Your task to perform on an android device: turn off notifications settings in the gmail app Image 0: 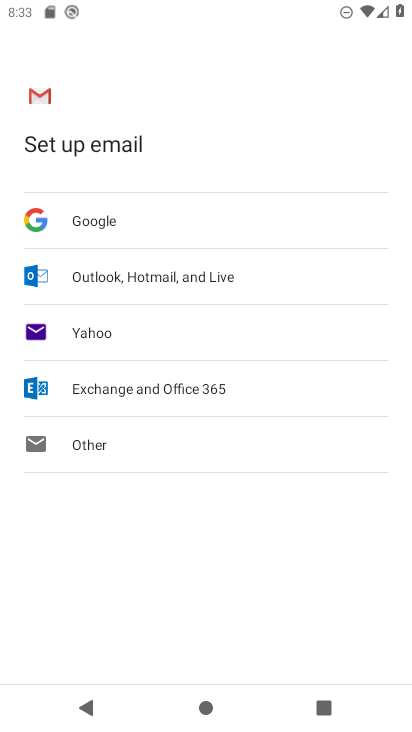
Step 0: press home button
Your task to perform on an android device: turn off notifications settings in the gmail app Image 1: 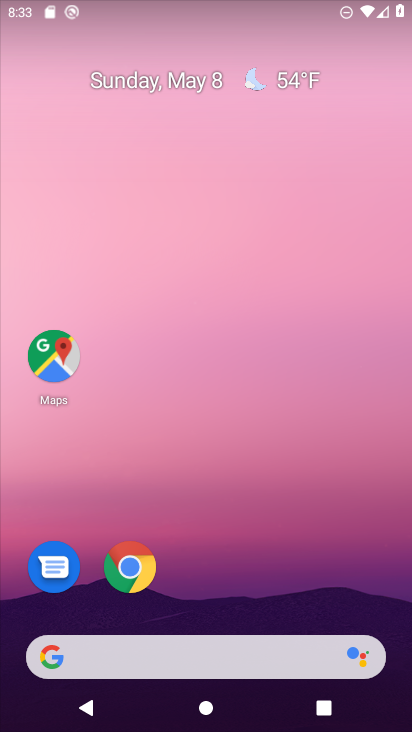
Step 1: drag from (266, 501) to (361, 67)
Your task to perform on an android device: turn off notifications settings in the gmail app Image 2: 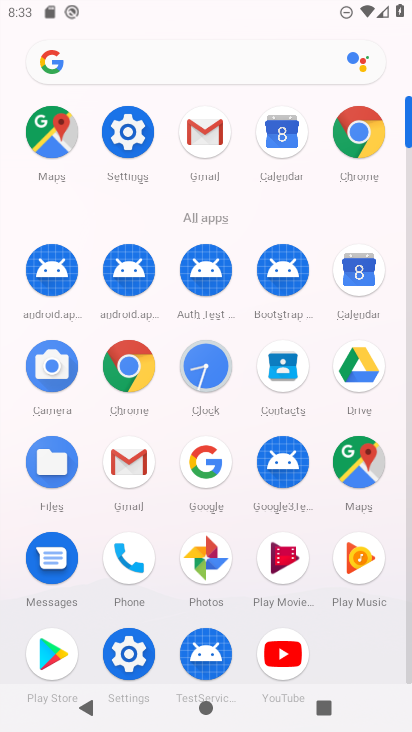
Step 2: click (227, 138)
Your task to perform on an android device: turn off notifications settings in the gmail app Image 3: 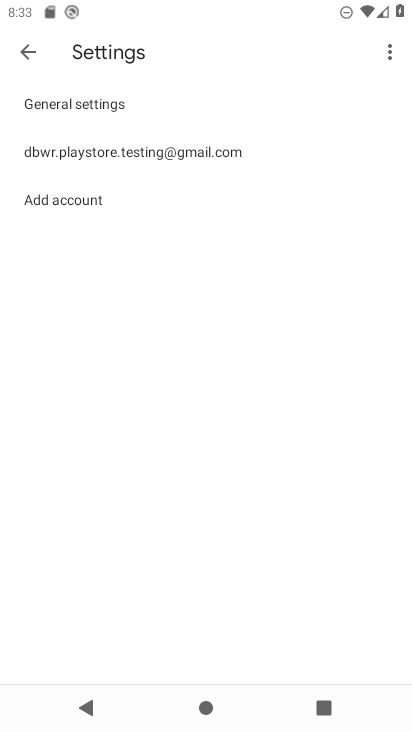
Step 3: click (64, 156)
Your task to perform on an android device: turn off notifications settings in the gmail app Image 4: 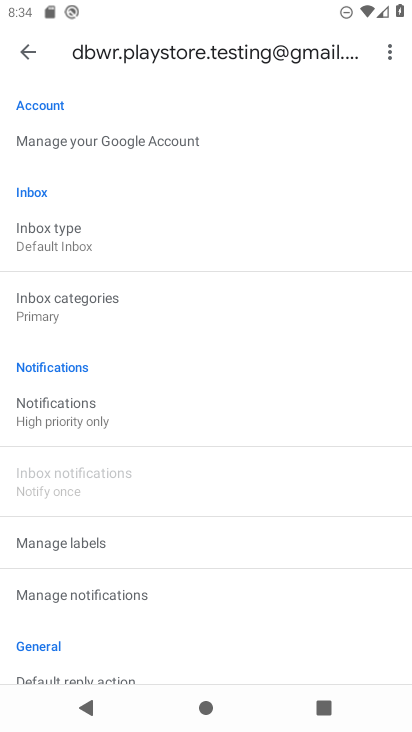
Step 4: click (71, 416)
Your task to perform on an android device: turn off notifications settings in the gmail app Image 5: 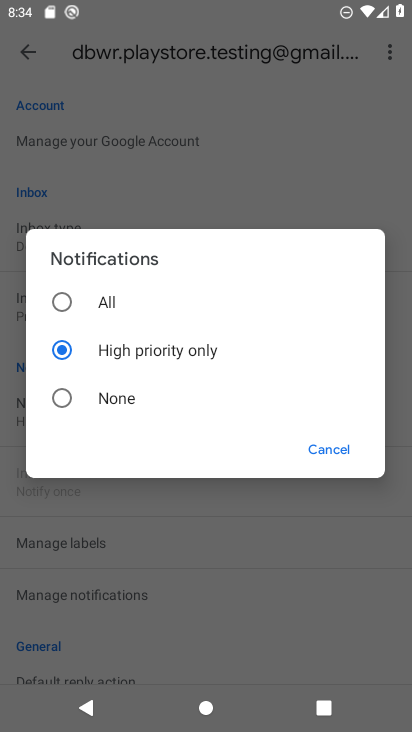
Step 5: click (67, 401)
Your task to perform on an android device: turn off notifications settings in the gmail app Image 6: 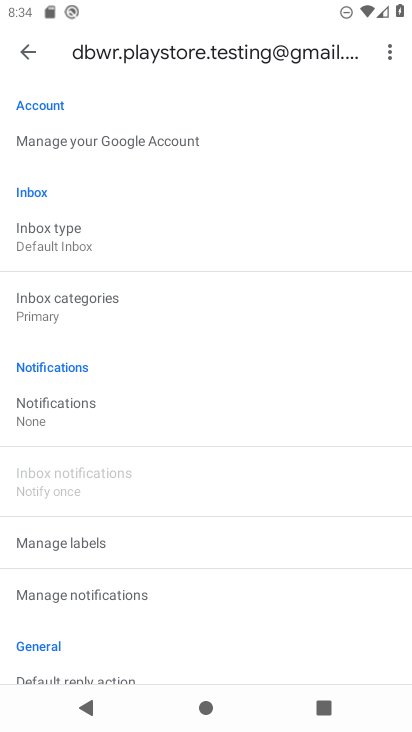
Step 6: task complete